Your task to perform on an android device: What's the weather going to be this weekend? Image 0: 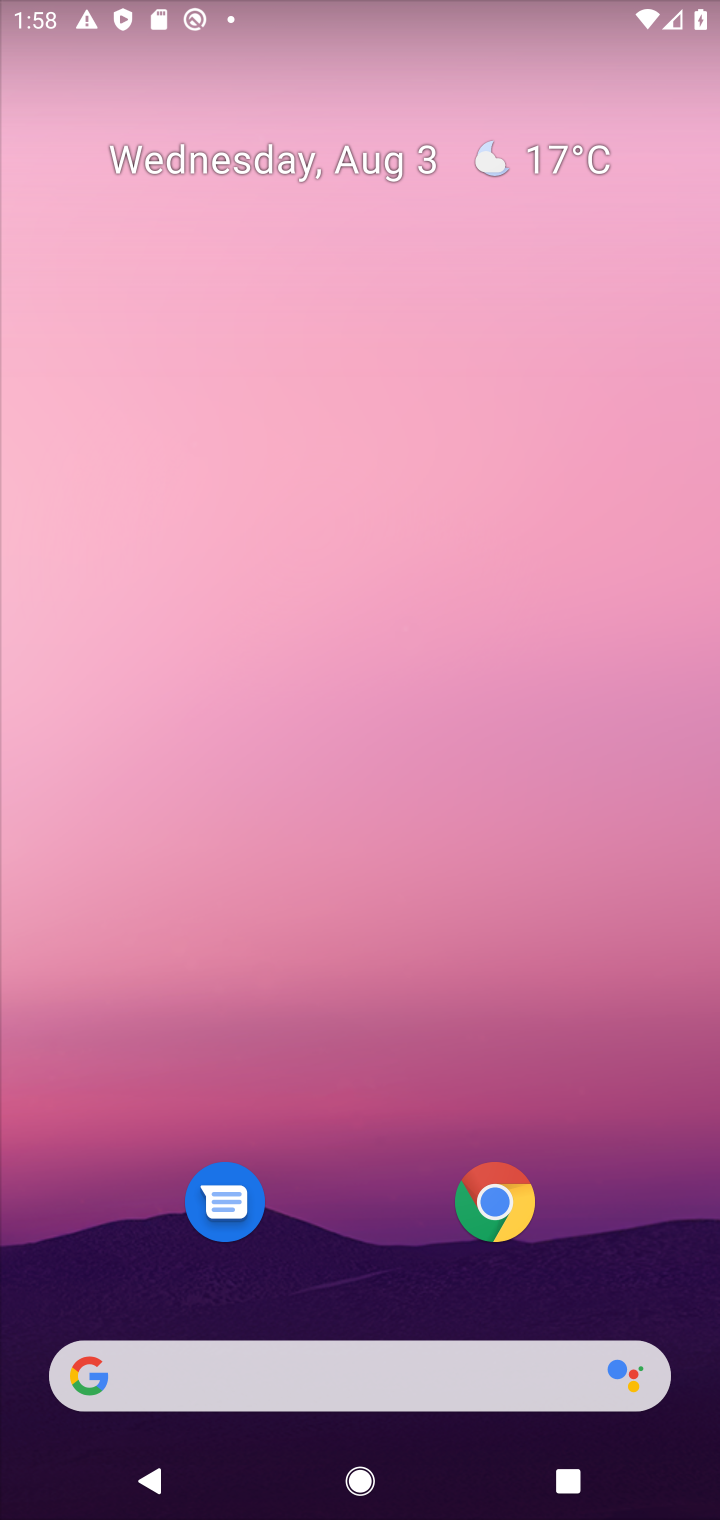
Step 0: click (283, 1378)
Your task to perform on an android device: What's the weather going to be this weekend? Image 1: 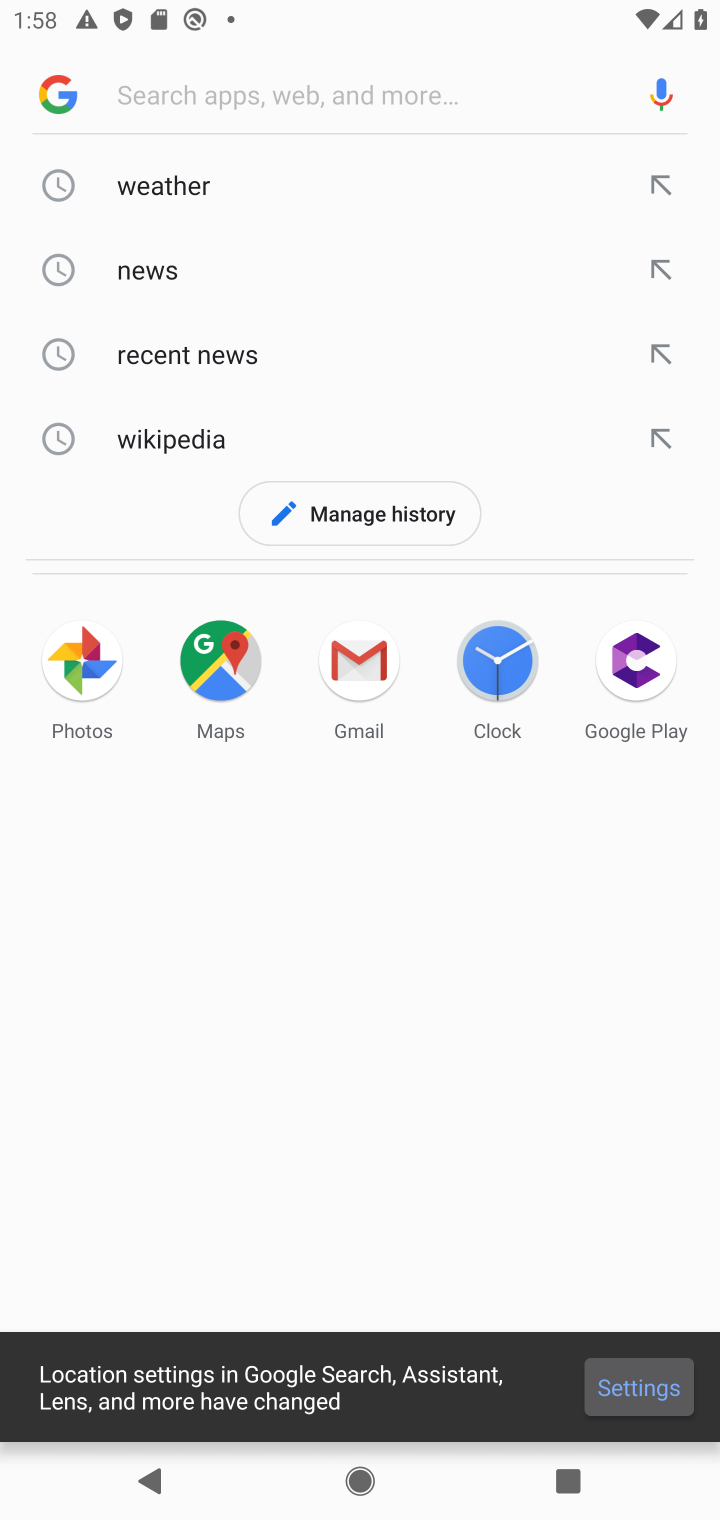
Step 1: click (136, 168)
Your task to perform on an android device: What's the weather going to be this weekend? Image 2: 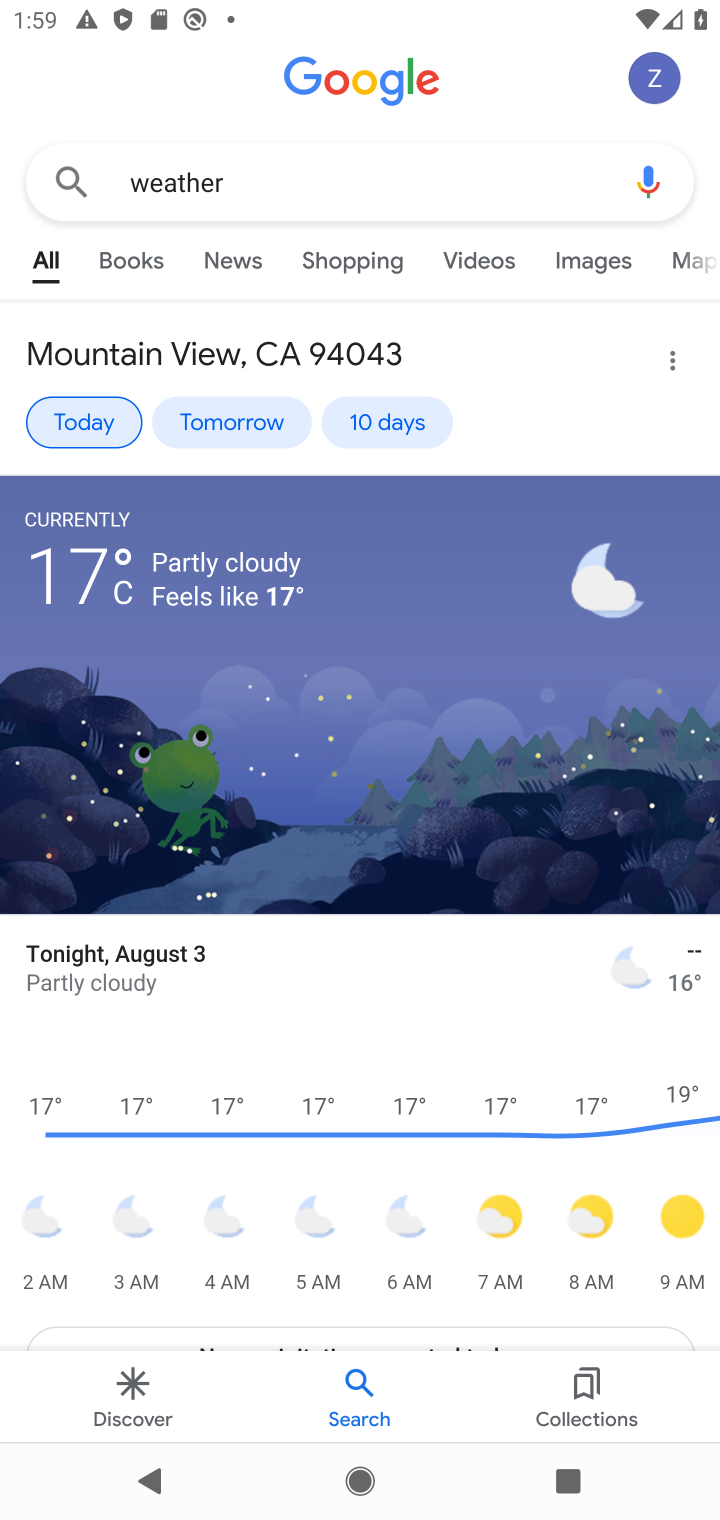
Step 2: click (404, 418)
Your task to perform on an android device: What's the weather going to be this weekend? Image 3: 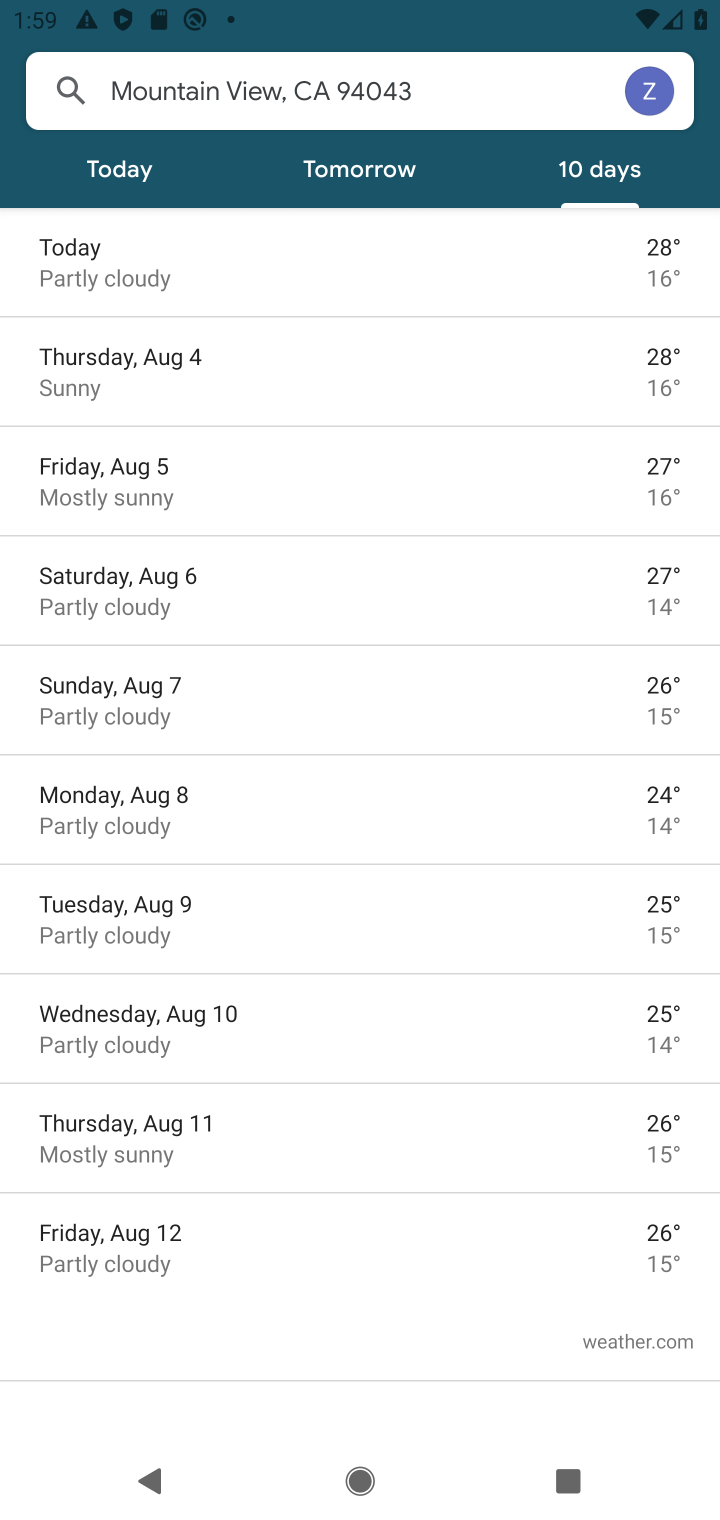
Step 3: task complete